Your task to perform on an android device: make emails show in primary in the gmail app Image 0: 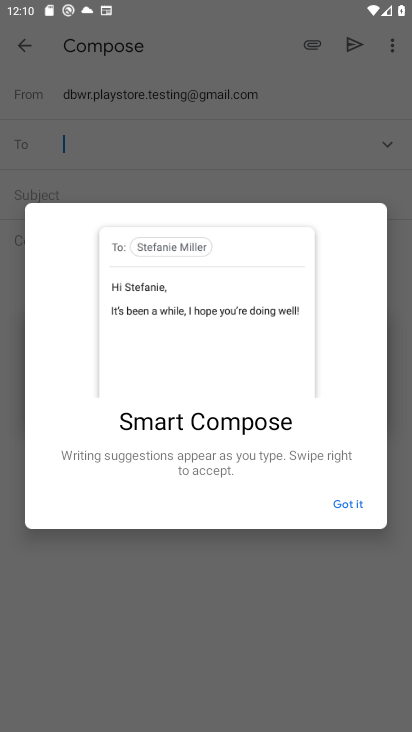
Step 0: press home button
Your task to perform on an android device: make emails show in primary in the gmail app Image 1: 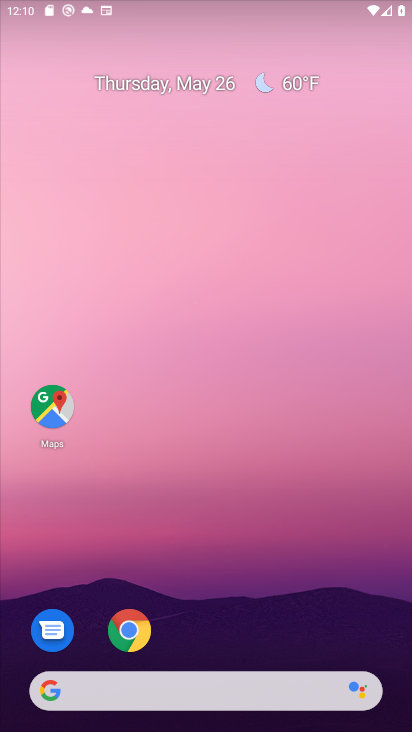
Step 1: drag from (341, 557) to (381, 143)
Your task to perform on an android device: make emails show in primary in the gmail app Image 2: 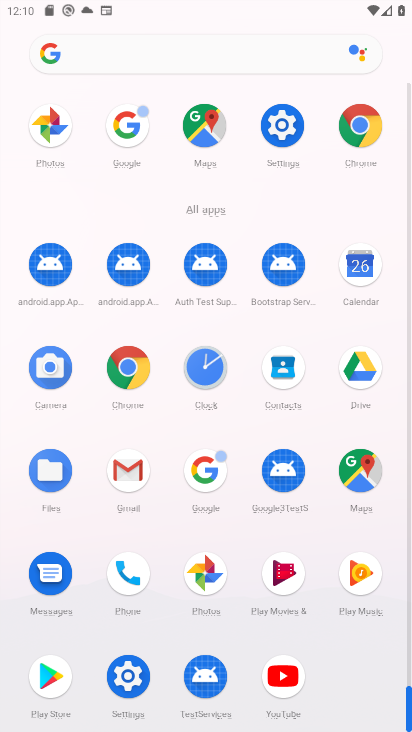
Step 2: click (136, 457)
Your task to perform on an android device: make emails show in primary in the gmail app Image 3: 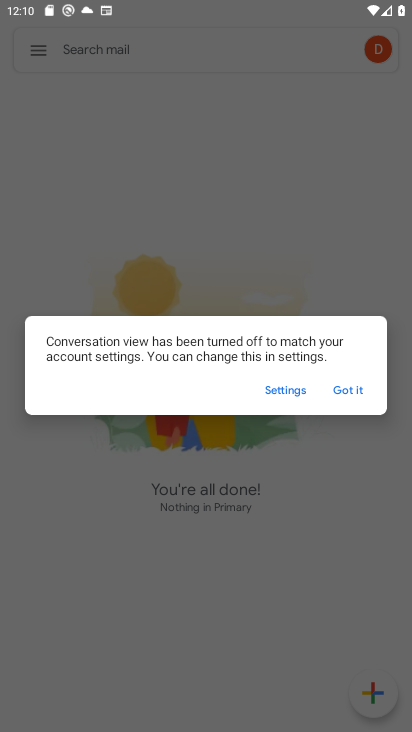
Step 3: click (351, 385)
Your task to perform on an android device: make emails show in primary in the gmail app Image 4: 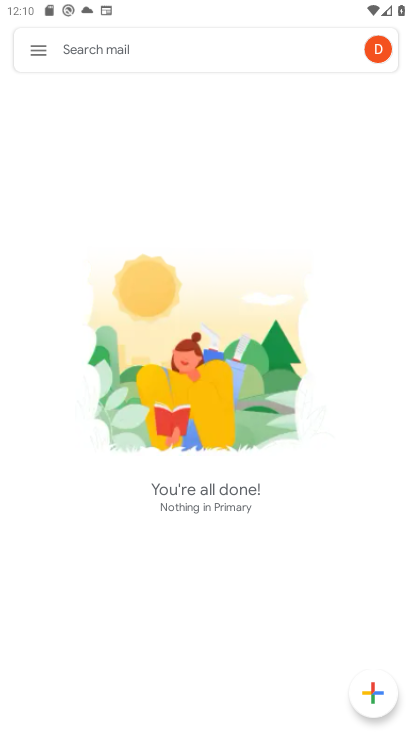
Step 4: click (52, 59)
Your task to perform on an android device: make emails show in primary in the gmail app Image 5: 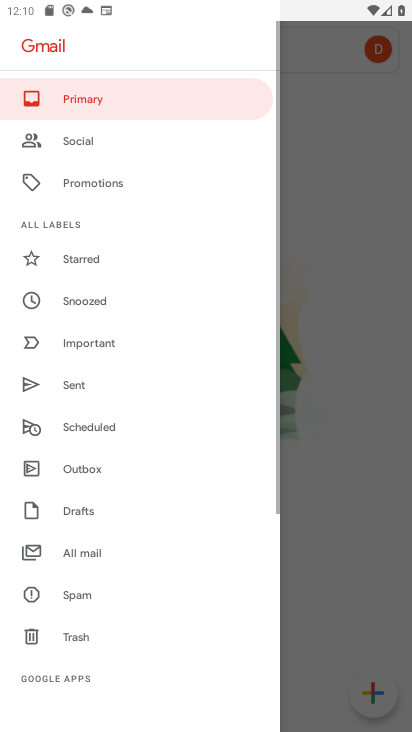
Step 5: drag from (115, 575) to (171, 198)
Your task to perform on an android device: make emails show in primary in the gmail app Image 6: 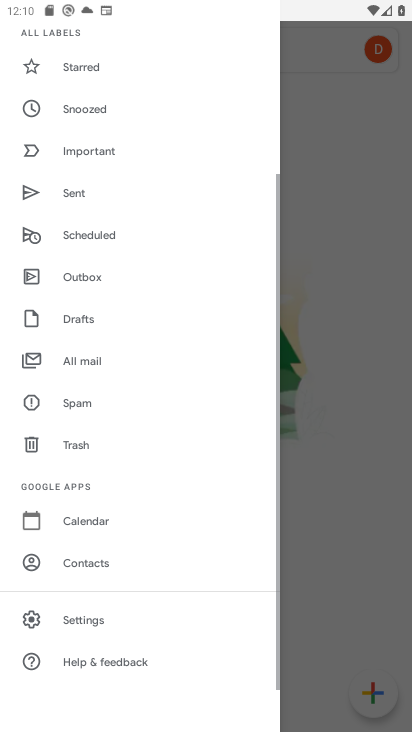
Step 6: click (75, 605)
Your task to perform on an android device: make emails show in primary in the gmail app Image 7: 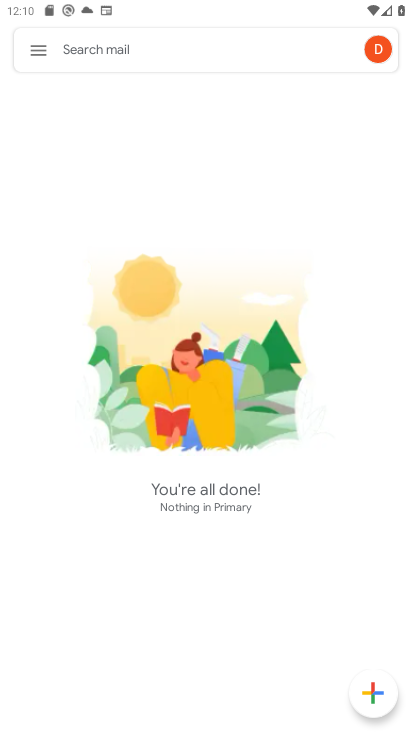
Step 7: click (75, 615)
Your task to perform on an android device: make emails show in primary in the gmail app Image 8: 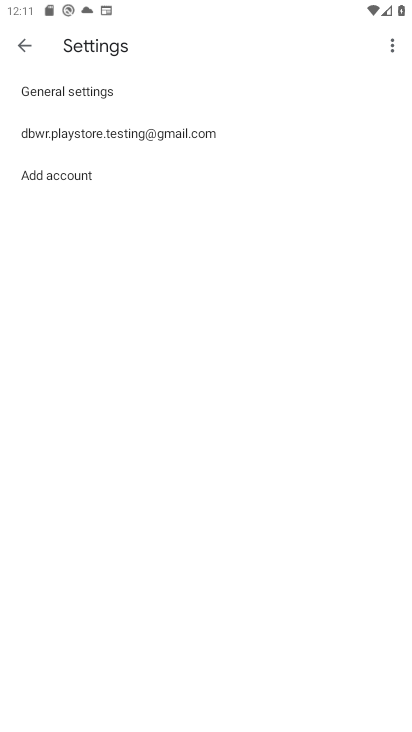
Step 8: click (85, 139)
Your task to perform on an android device: make emails show in primary in the gmail app Image 9: 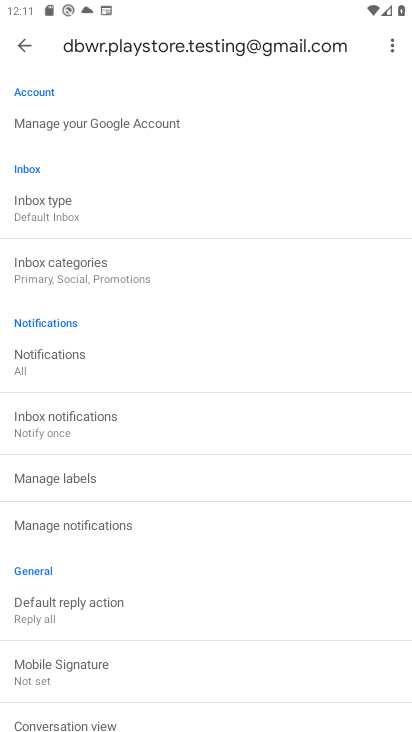
Step 9: task complete